Your task to perform on an android device: Show me productivity apps on the Play Store Image 0: 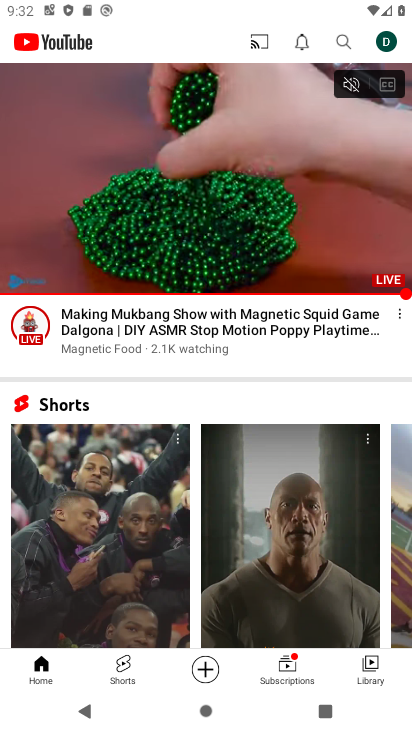
Step 0: press home button
Your task to perform on an android device: Show me productivity apps on the Play Store Image 1: 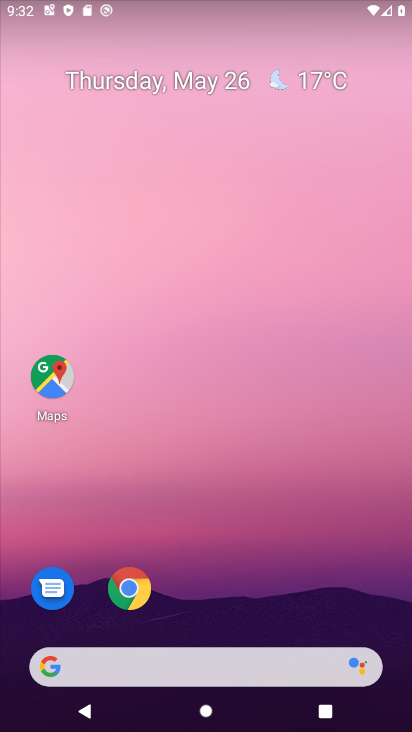
Step 1: drag from (363, 599) to (303, 22)
Your task to perform on an android device: Show me productivity apps on the Play Store Image 2: 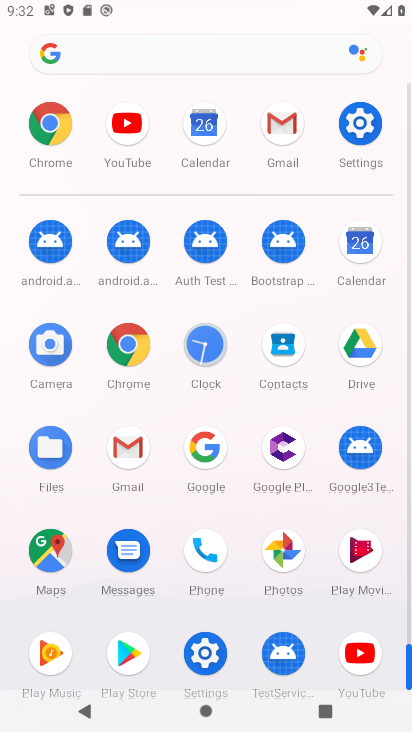
Step 2: click (133, 651)
Your task to perform on an android device: Show me productivity apps on the Play Store Image 3: 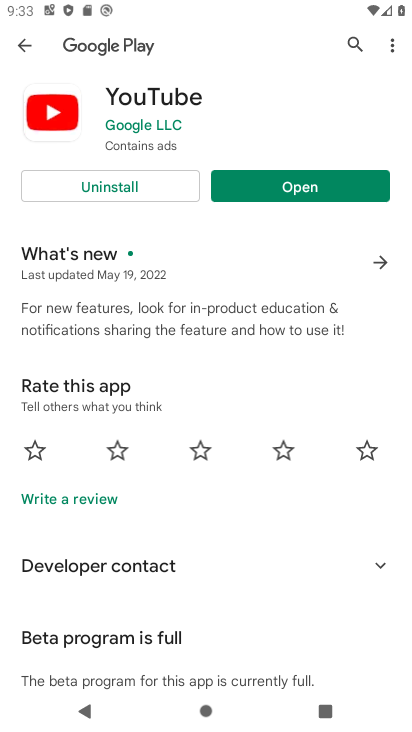
Step 3: press back button
Your task to perform on an android device: Show me productivity apps on the Play Store Image 4: 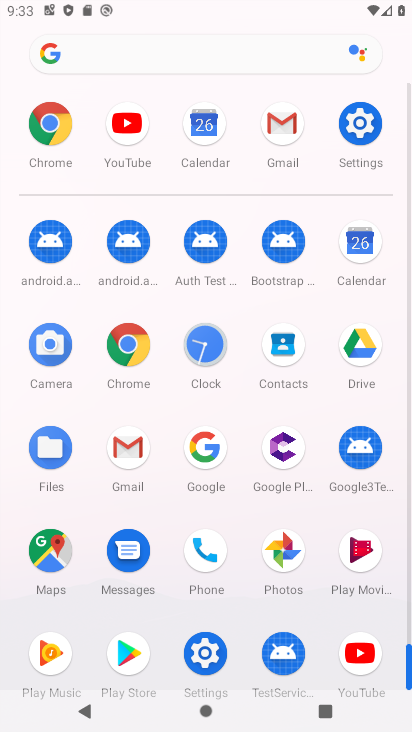
Step 4: click (125, 646)
Your task to perform on an android device: Show me productivity apps on the Play Store Image 5: 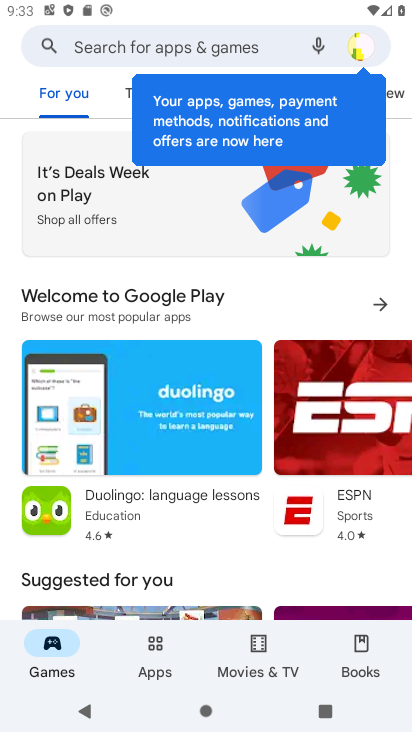
Step 5: click (146, 663)
Your task to perform on an android device: Show me productivity apps on the Play Store Image 6: 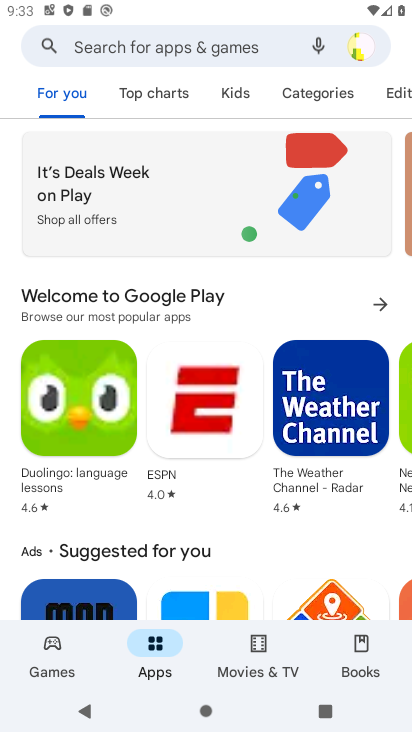
Step 6: click (330, 90)
Your task to perform on an android device: Show me productivity apps on the Play Store Image 7: 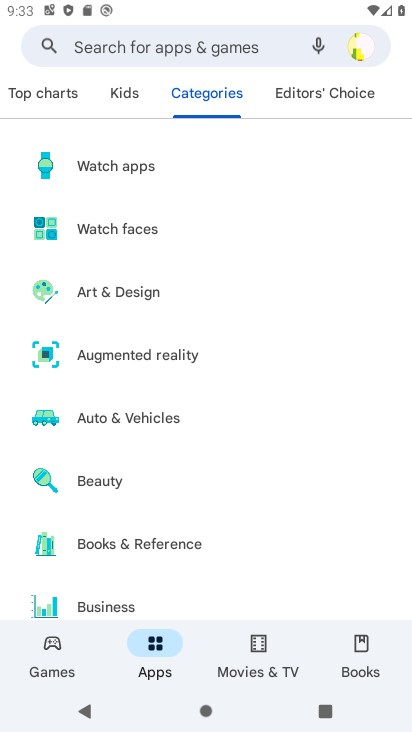
Step 7: drag from (245, 487) to (219, 135)
Your task to perform on an android device: Show me productivity apps on the Play Store Image 8: 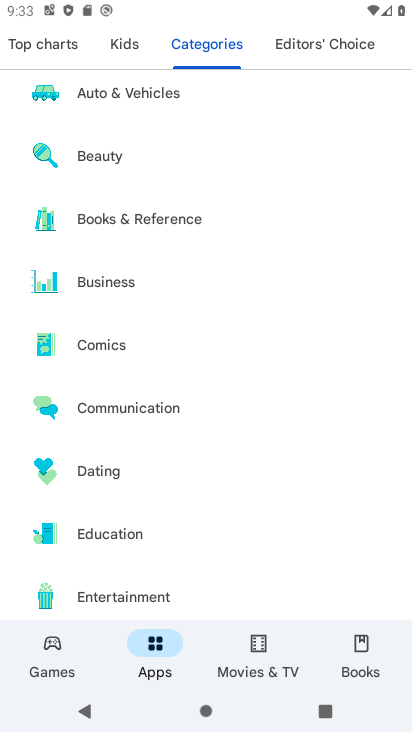
Step 8: drag from (221, 567) to (235, 112)
Your task to perform on an android device: Show me productivity apps on the Play Store Image 9: 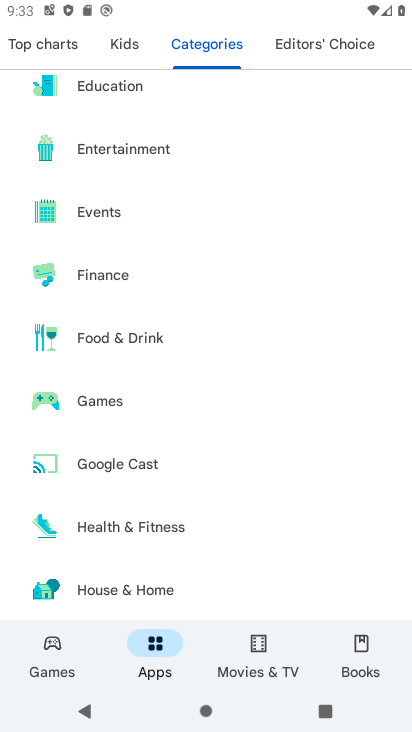
Step 9: drag from (228, 579) to (221, 134)
Your task to perform on an android device: Show me productivity apps on the Play Store Image 10: 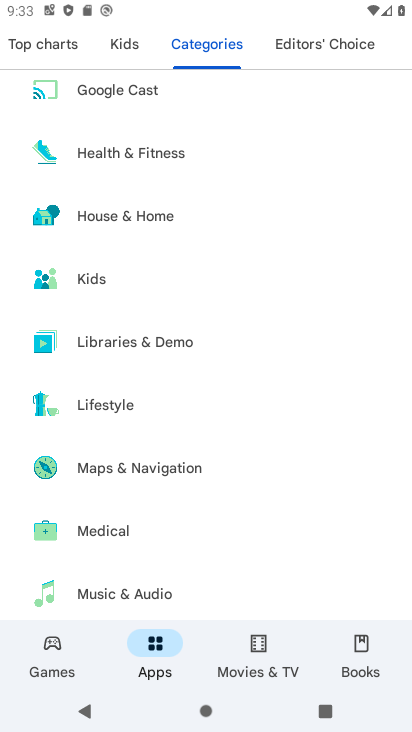
Step 10: drag from (227, 583) to (204, 114)
Your task to perform on an android device: Show me productivity apps on the Play Store Image 11: 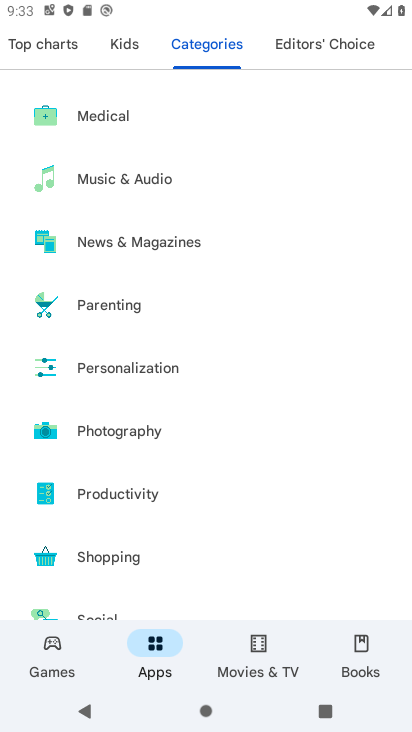
Step 11: click (121, 487)
Your task to perform on an android device: Show me productivity apps on the Play Store Image 12: 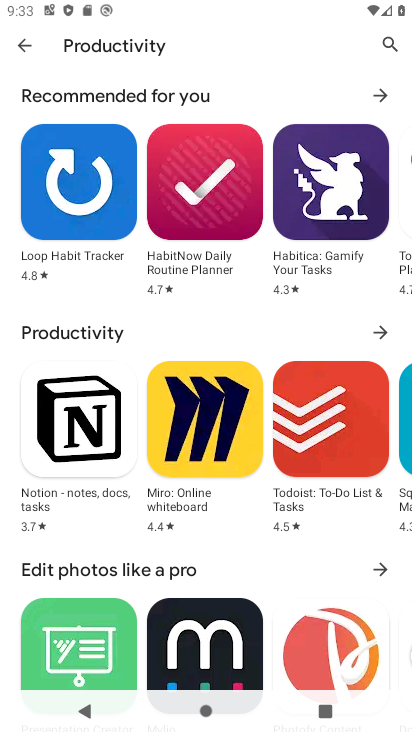
Step 12: drag from (297, 571) to (290, 491)
Your task to perform on an android device: Show me productivity apps on the Play Store Image 13: 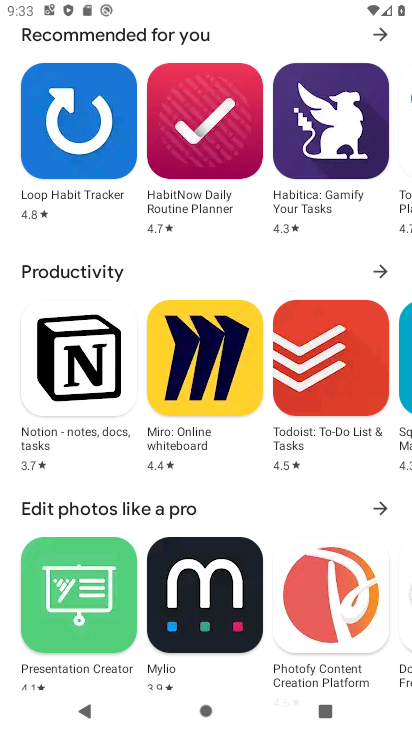
Step 13: click (380, 266)
Your task to perform on an android device: Show me productivity apps on the Play Store Image 14: 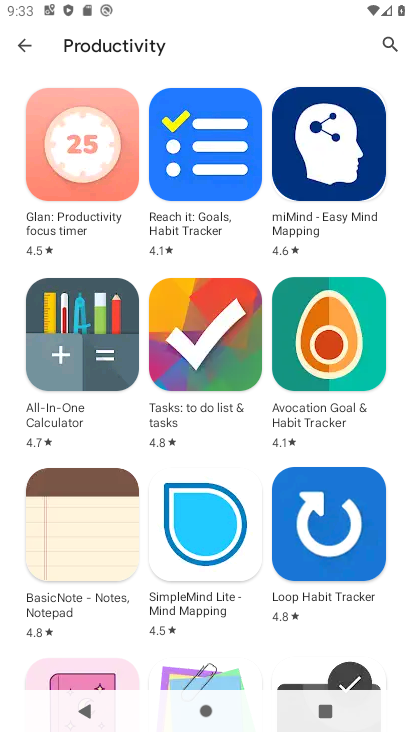
Step 14: task complete